Your task to perform on an android device: turn on the 12-hour format for clock Image 0: 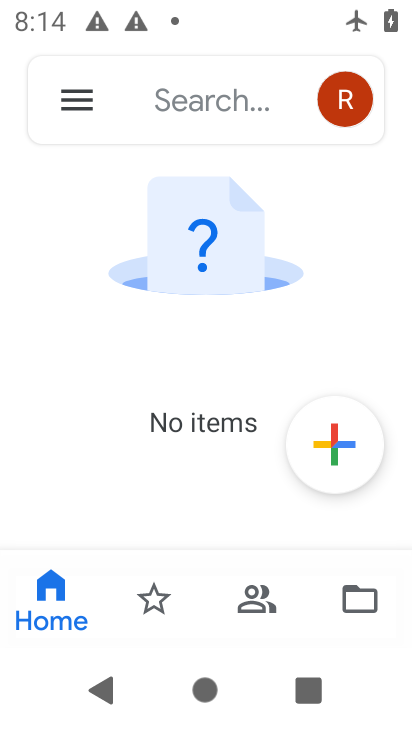
Step 0: press back button
Your task to perform on an android device: turn on the 12-hour format for clock Image 1: 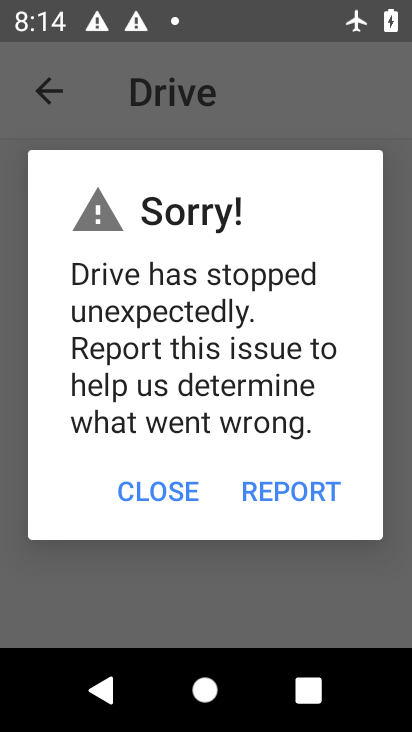
Step 1: press home button
Your task to perform on an android device: turn on the 12-hour format for clock Image 2: 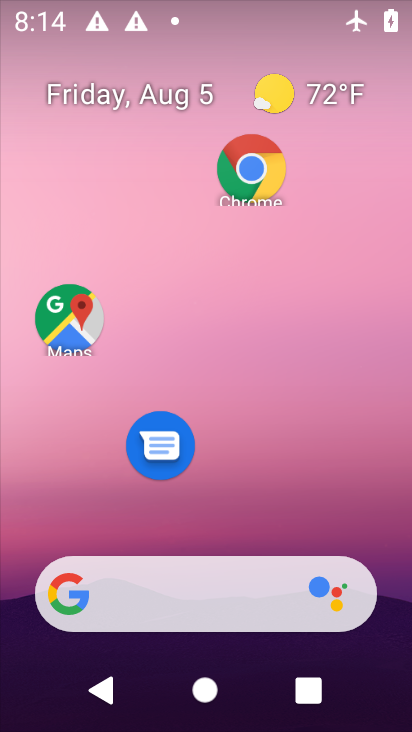
Step 2: drag from (211, 532) to (219, 70)
Your task to perform on an android device: turn on the 12-hour format for clock Image 3: 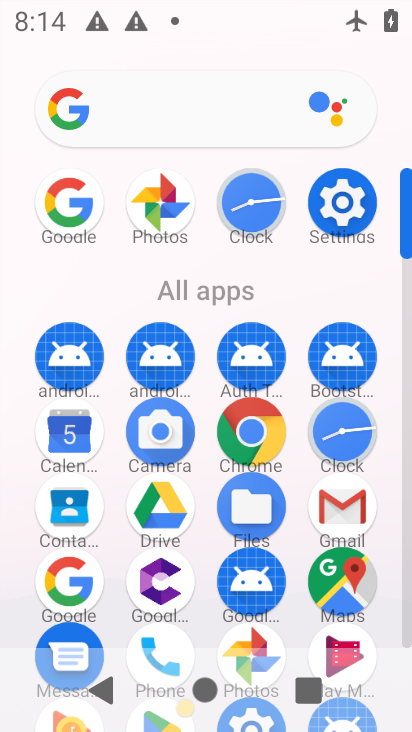
Step 3: click (350, 434)
Your task to perform on an android device: turn on the 12-hour format for clock Image 4: 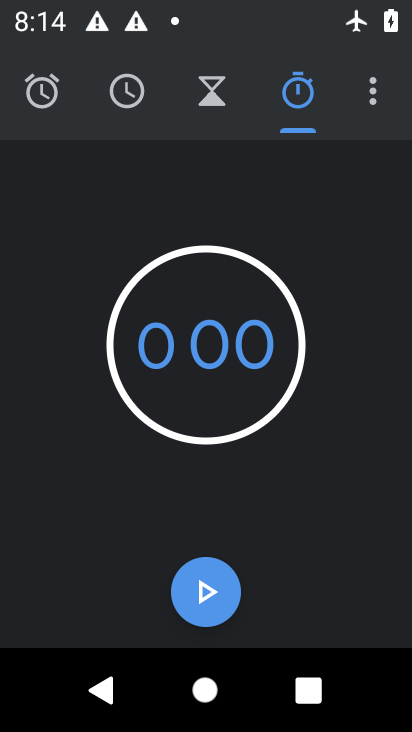
Step 4: click (385, 98)
Your task to perform on an android device: turn on the 12-hour format for clock Image 5: 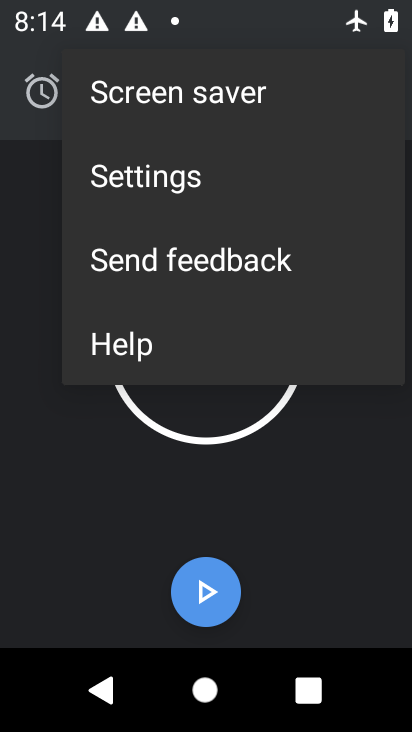
Step 5: click (209, 161)
Your task to perform on an android device: turn on the 12-hour format for clock Image 6: 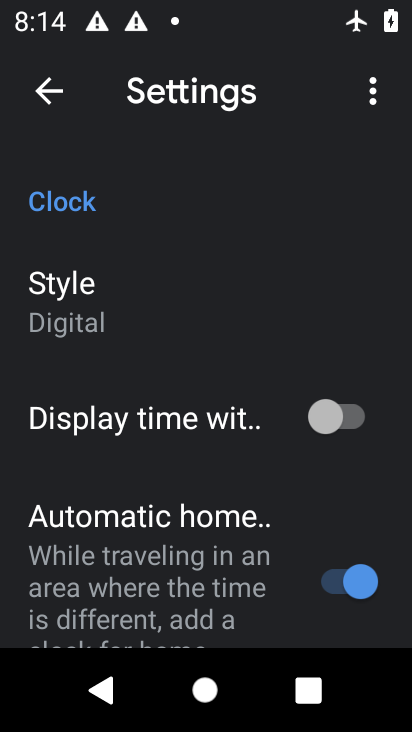
Step 6: drag from (203, 564) to (200, 205)
Your task to perform on an android device: turn on the 12-hour format for clock Image 7: 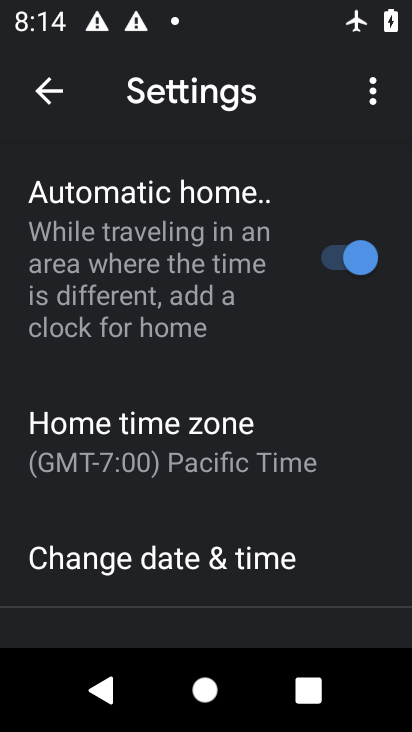
Step 7: drag from (205, 583) to (210, 425)
Your task to perform on an android device: turn on the 12-hour format for clock Image 8: 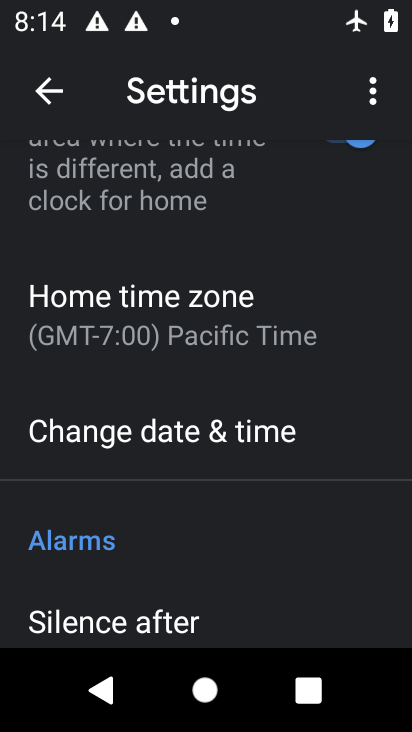
Step 8: click (225, 430)
Your task to perform on an android device: turn on the 12-hour format for clock Image 9: 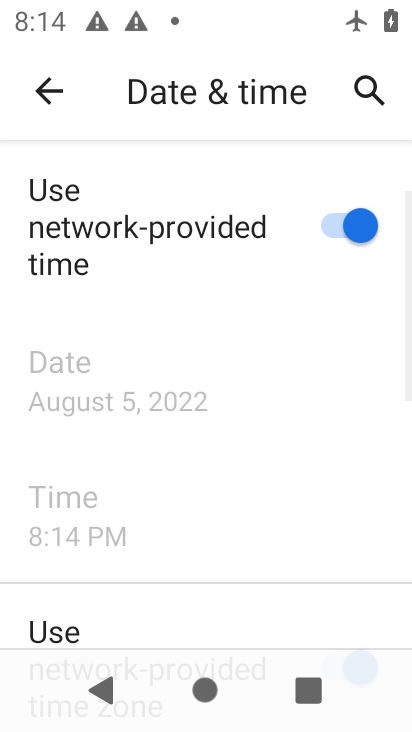
Step 9: task complete